Your task to perform on an android device: What's on my calendar tomorrow? Image 0: 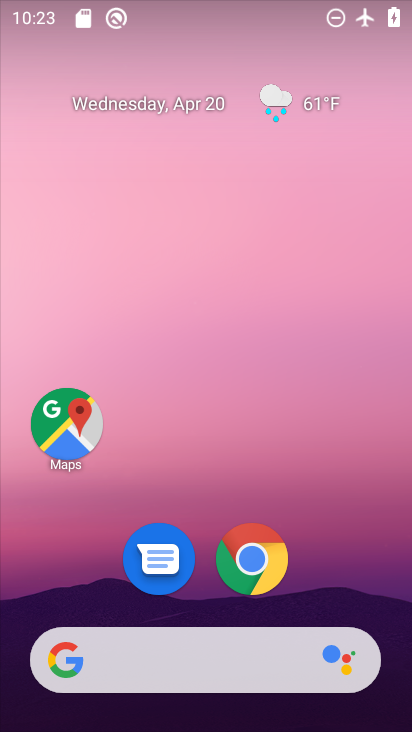
Step 0: drag from (385, 597) to (309, 123)
Your task to perform on an android device: What's on my calendar tomorrow? Image 1: 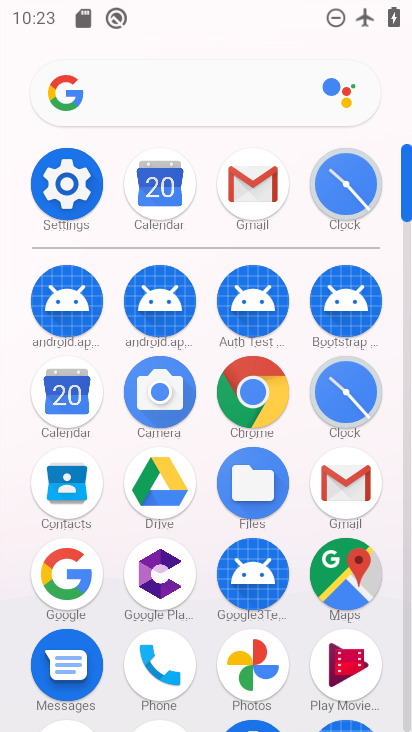
Step 1: click (406, 679)
Your task to perform on an android device: What's on my calendar tomorrow? Image 2: 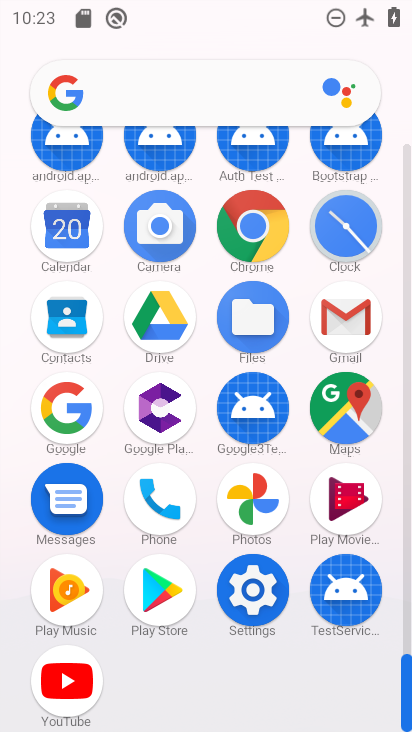
Step 2: click (62, 232)
Your task to perform on an android device: What's on my calendar tomorrow? Image 3: 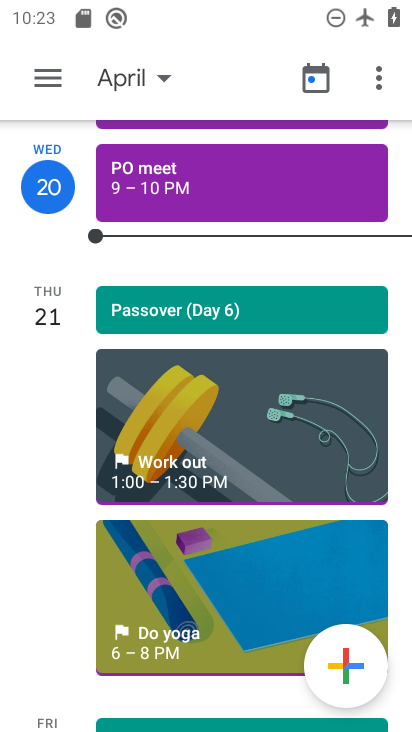
Step 3: click (42, 68)
Your task to perform on an android device: What's on my calendar tomorrow? Image 4: 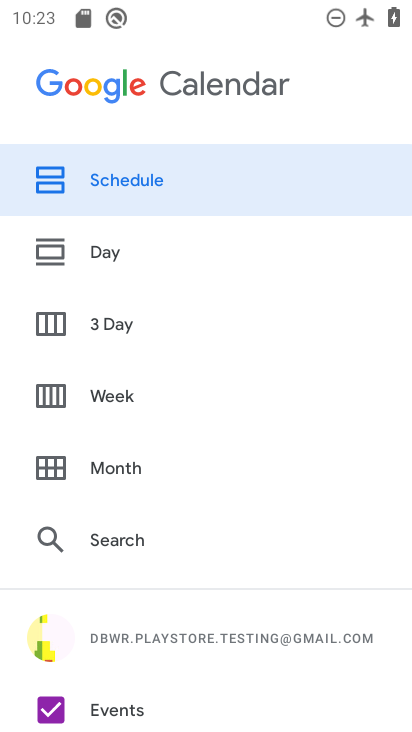
Step 4: click (99, 249)
Your task to perform on an android device: What's on my calendar tomorrow? Image 5: 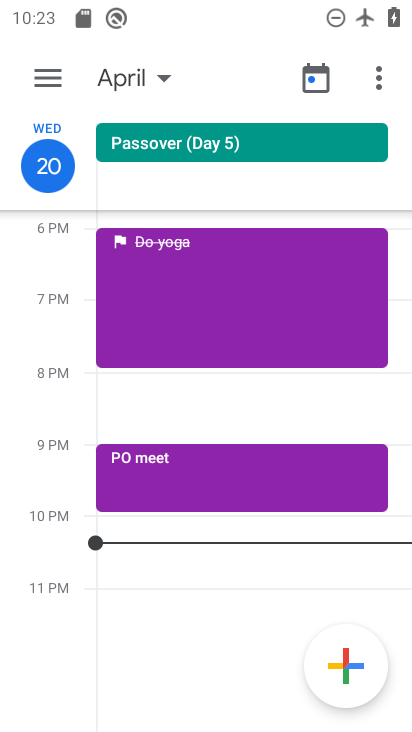
Step 5: click (163, 74)
Your task to perform on an android device: What's on my calendar tomorrow? Image 6: 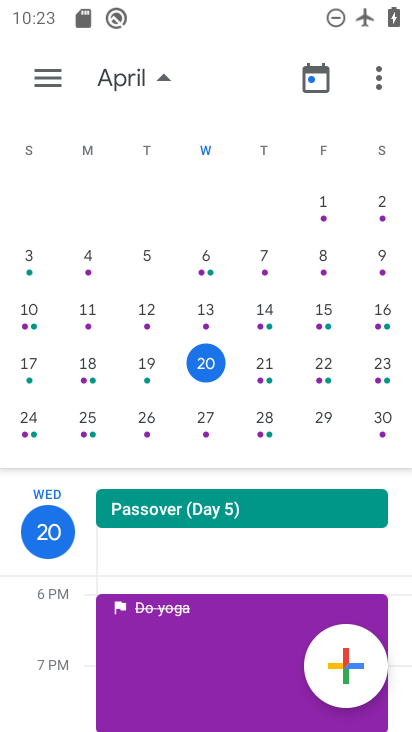
Step 6: click (262, 364)
Your task to perform on an android device: What's on my calendar tomorrow? Image 7: 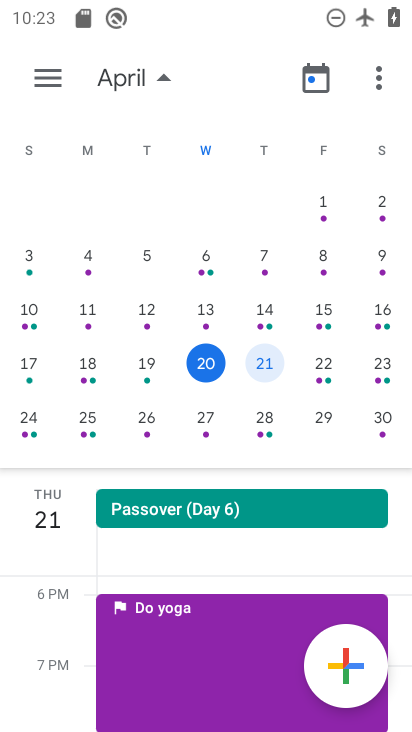
Step 7: drag from (236, 563) to (225, 372)
Your task to perform on an android device: What's on my calendar tomorrow? Image 8: 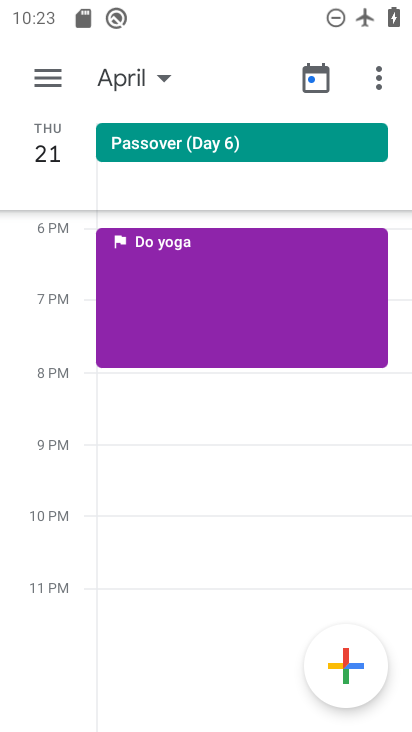
Step 8: click (234, 569)
Your task to perform on an android device: What's on my calendar tomorrow? Image 9: 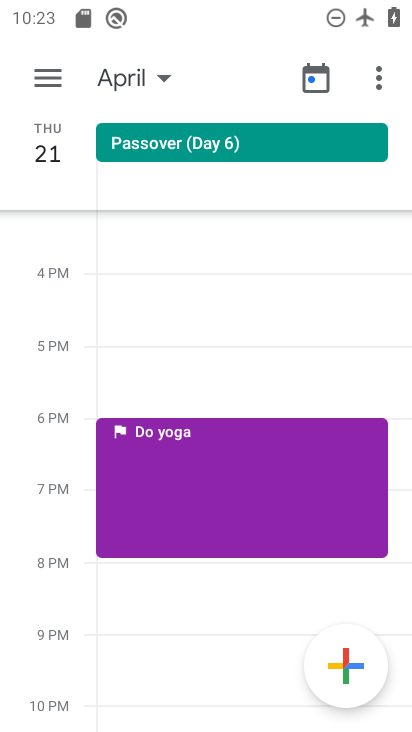
Step 9: task complete